Your task to perform on an android device: Show me the alarms in the clock app Image 0: 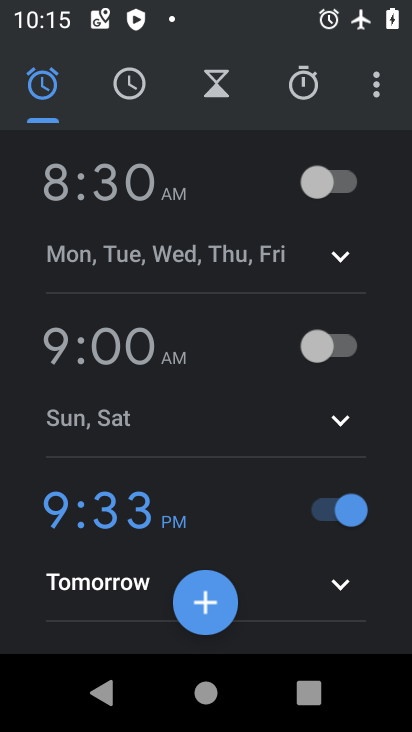
Step 0: press home button
Your task to perform on an android device: Show me the alarms in the clock app Image 1: 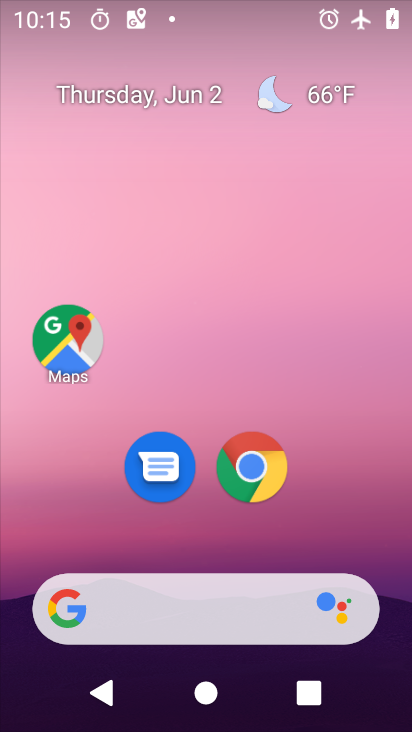
Step 1: drag from (55, 553) to (293, 171)
Your task to perform on an android device: Show me the alarms in the clock app Image 2: 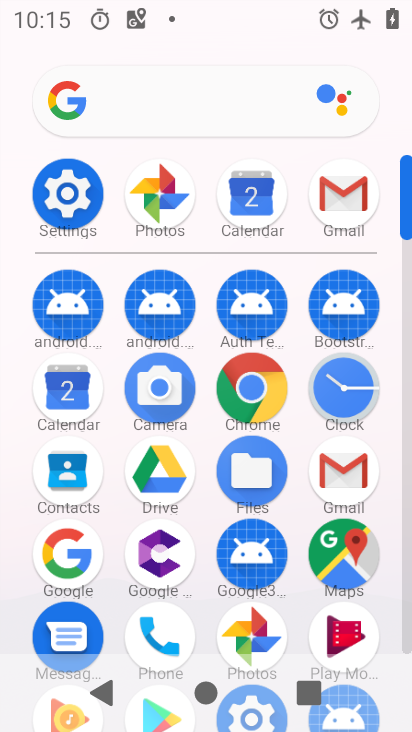
Step 2: click (350, 393)
Your task to perform on an android device: Show me the alarms in the clock app Image 3: 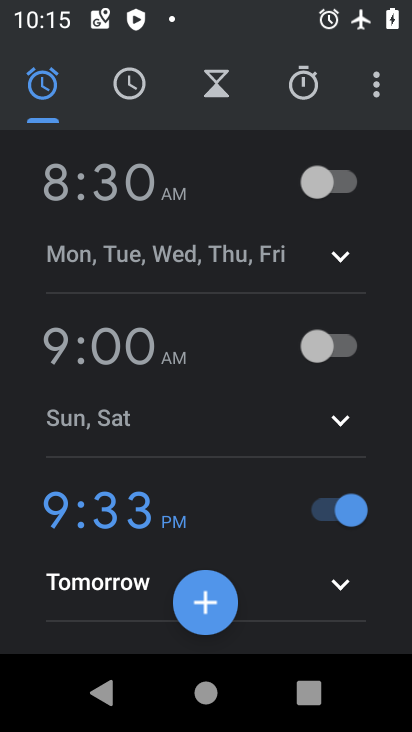
Step 3: task complete